Your task to perform on an android device: change the clock display to digital Image 0: 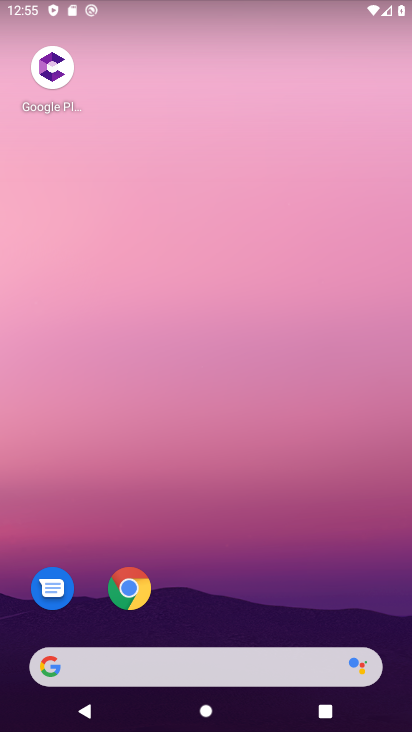
Step 0: drag from (186, 594) to (186, 299)
Your task to perform on an android device: change the clock display to digital Image 1: 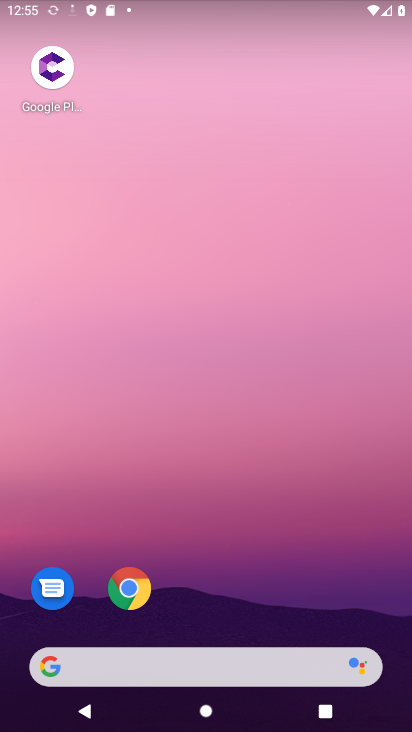
Step 1: drag from (264, 615) to (272, 156)
Your task to perform on an android device: change the clock display to digital Image 2: 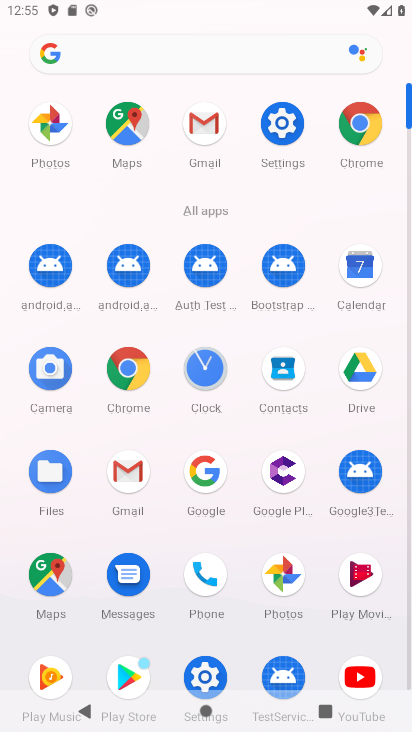
Step 2: click (188, 362)
Your task to perform on an android device: change the clock display to digital Image 3: 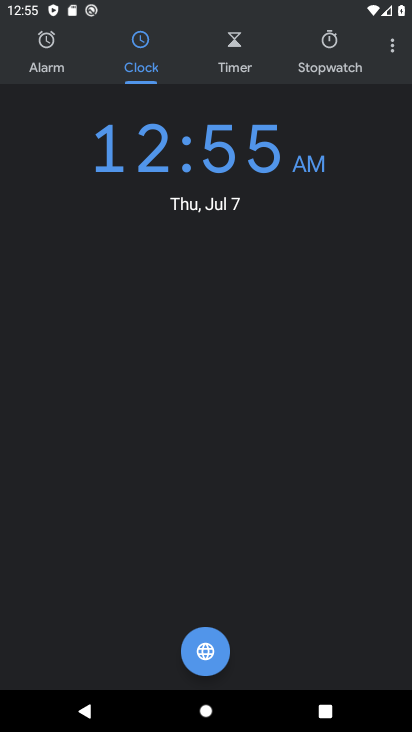
Step 3: click (379, 44)
Your task to perform on an android device: change the clock display to digital Image 4: 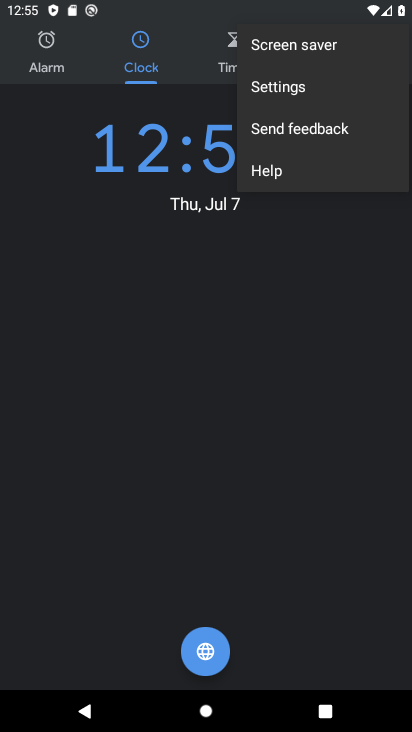
Step 4: click (271, 72)
Your task to perform on an android device: change the clock display to digital Image 5: 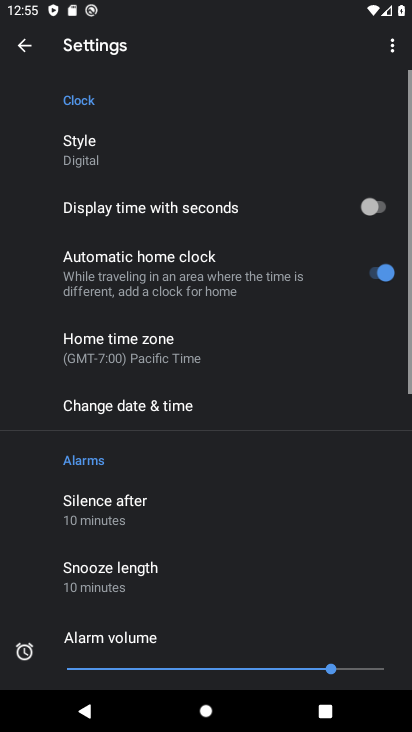
Step 5: click (82, 160)
Your task to perform on an android device: change the clock display to digital Image 6: 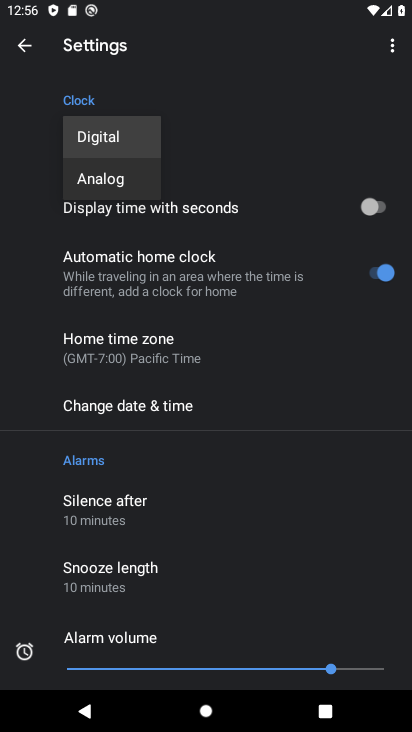
Step 6: task complete